Your task to perform on an android device: Go to settings Image 0: 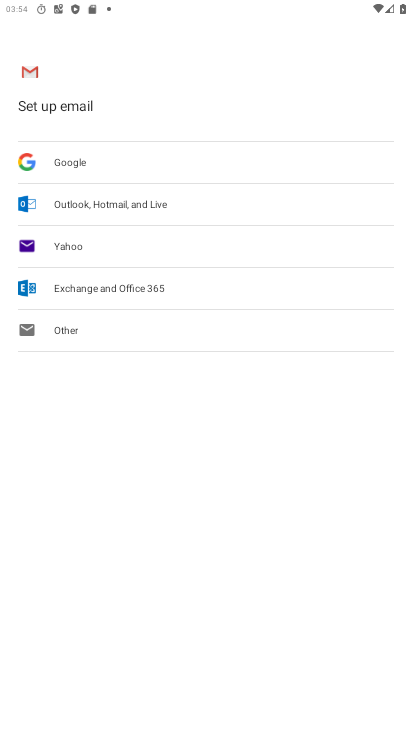
Step 0: click (253, 631)
Your task to perform on an android device: Go to settings Image 1: 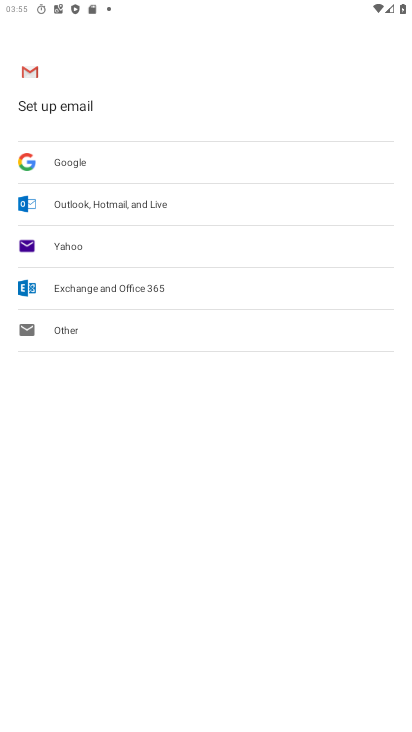
Step 1: press home button
Your task to perform on an android device: Go to settings Image 2: 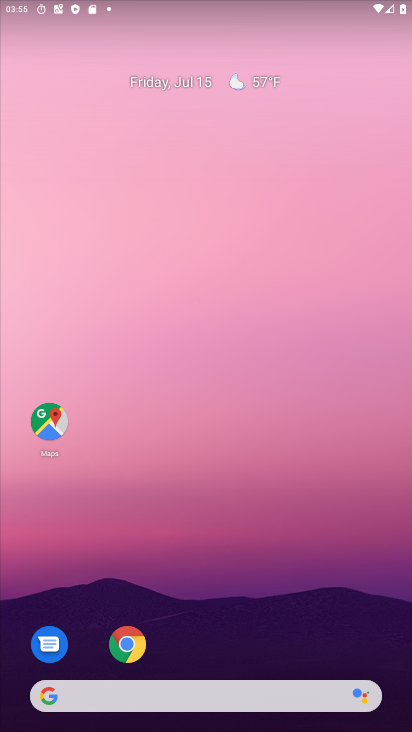
Step 2: drag from (385, 624) to (250, 187)
Your task to perform on an android device: Go to settings Image 3: 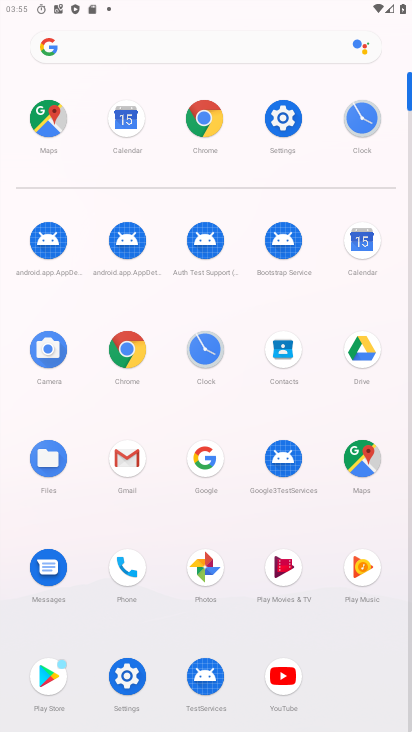
Step 3: click (274, 135)
Your task to perform on an android device: Go to settings Image 4: 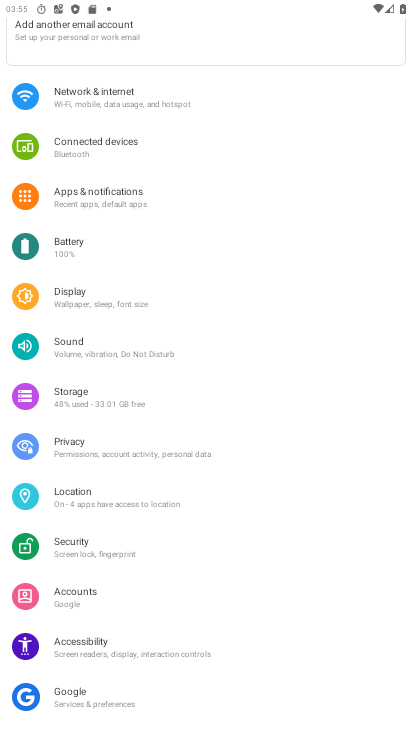
Step 4: task complete